Your task to perform on an android device: toggle sleep mode Image 0: 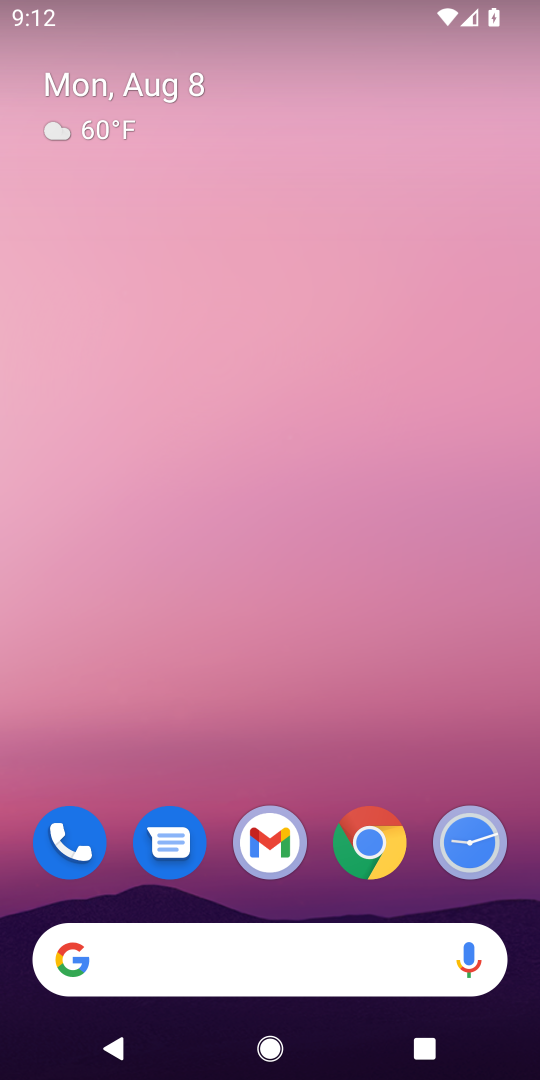
Step 0: click (246, 240)
Your task to perform on an android device: toggle sleep mode Image 1: 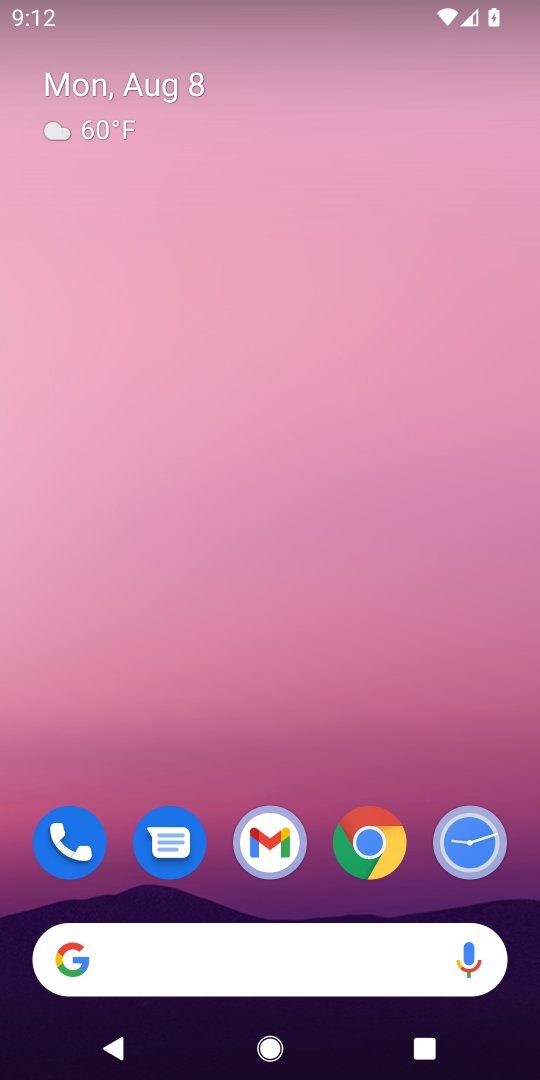
Step 1: drag from (232, 605) to (438, 35)
Your task to perform on an android device: toggle sleep mode Image 2: 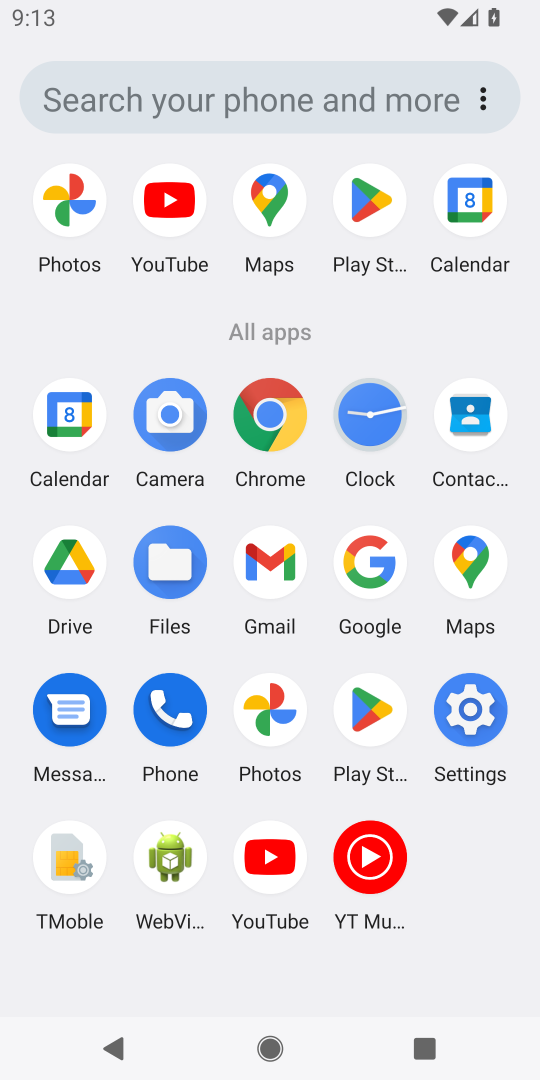
Step 2: click (479, 728)
Your task to perform on an android device: toggle sleep mode Image 3: 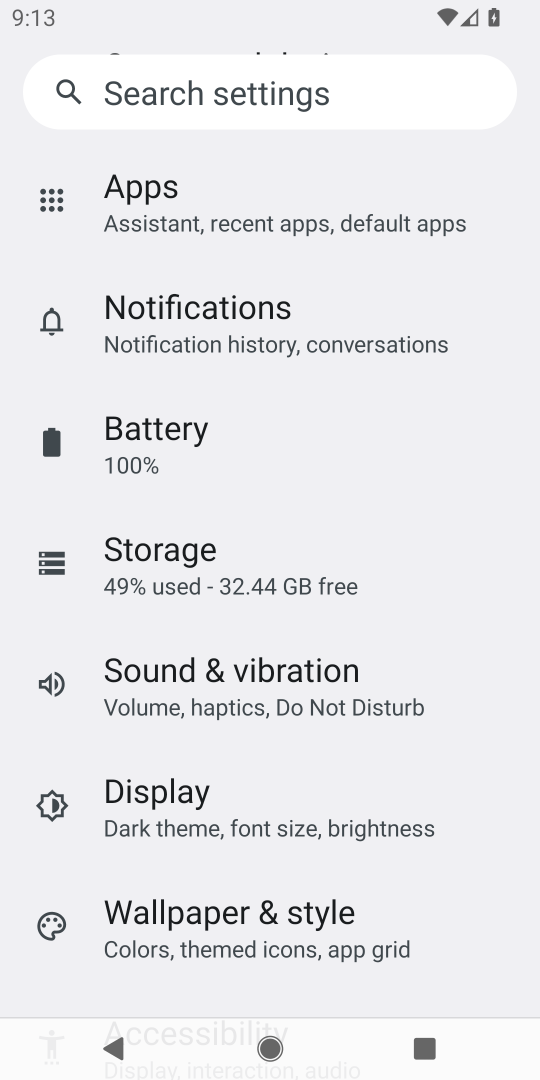
Step 3: click (218, 820)
Your task to perform on an android device: toggle sleep mode Image 4: 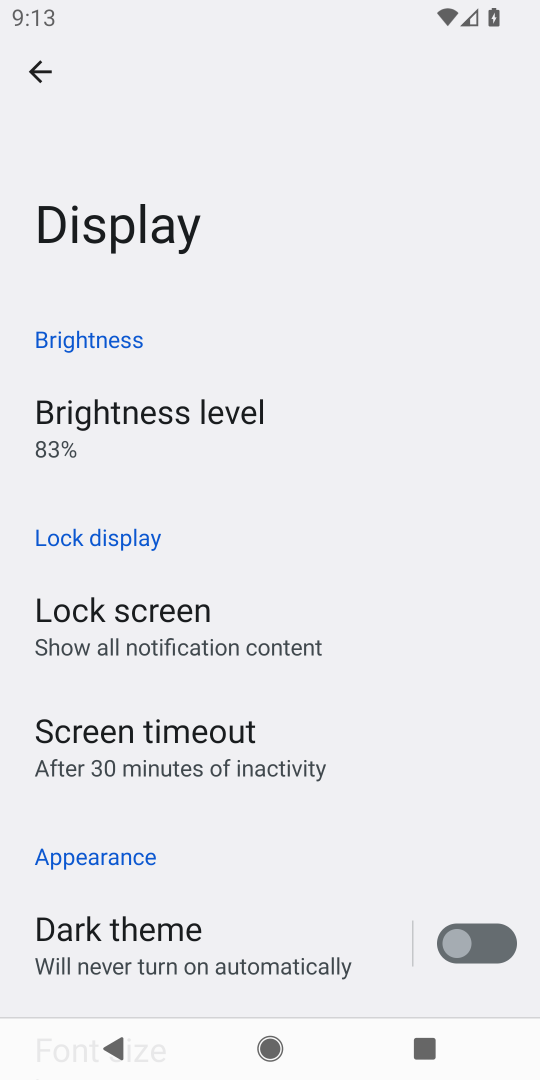
Step 4: task complete